Your task to perform on an android device: Add bose soundlink to the cart on amazon, then select checkout. Image 0: 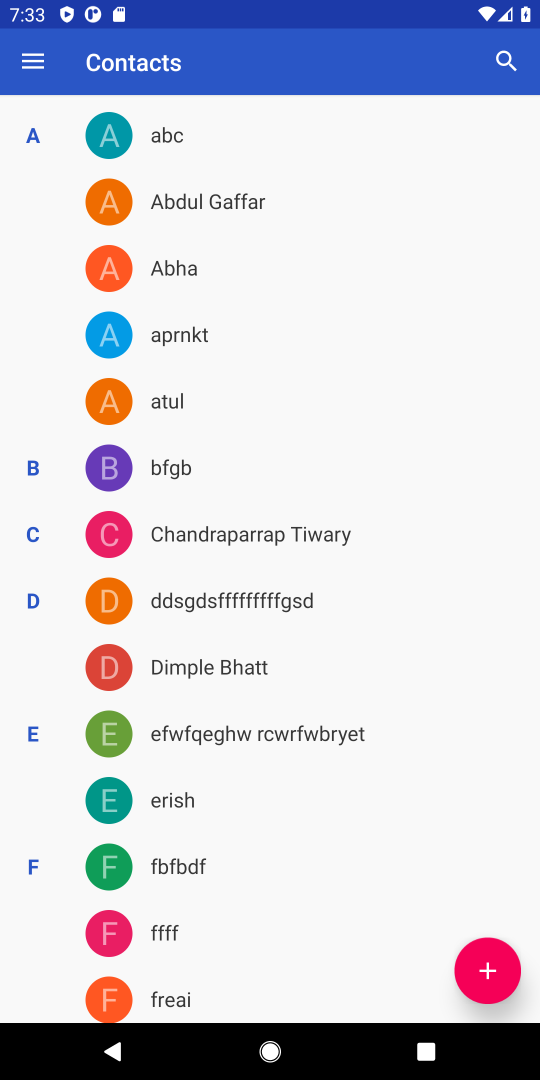
Step 0: press home button
Your task to perform on an android device: Add bose soundlink to the cart on amazon, then select checkout. Image 1: 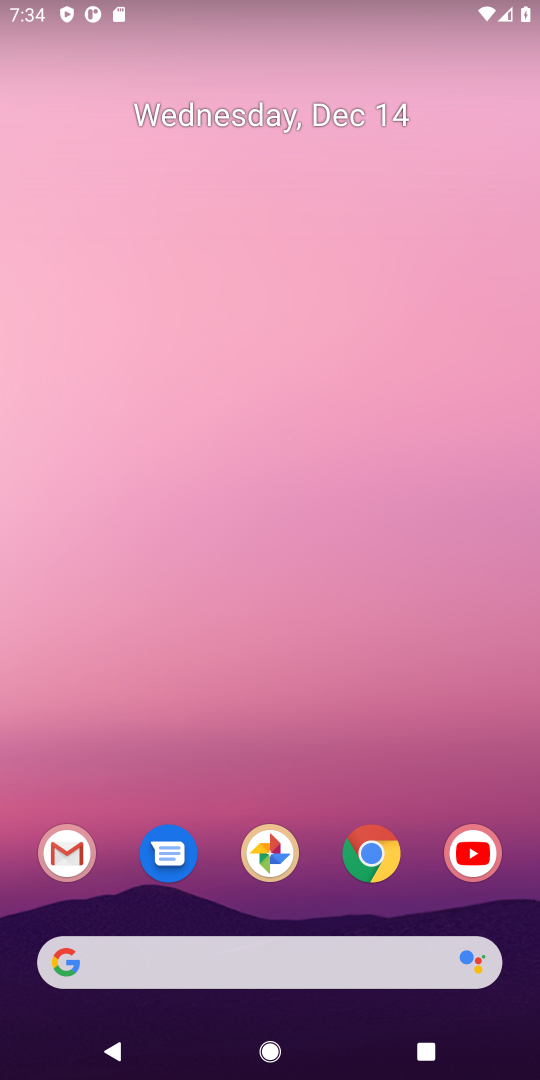
Step 1: click (374, 857)
Your task to perform on an android device: Add bose soundlink to the cart on amazon, then select checkout. Image 2: 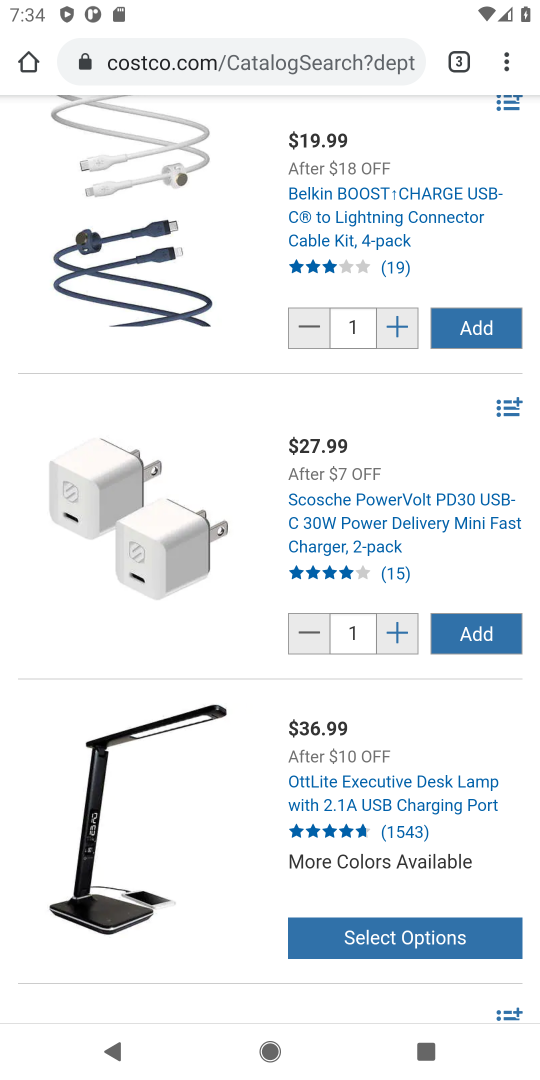
Step 2: click (453, 64)
Your task to perform on an android device: Add bose soundlink to the cart on amazon, then select checkout. Image 3: 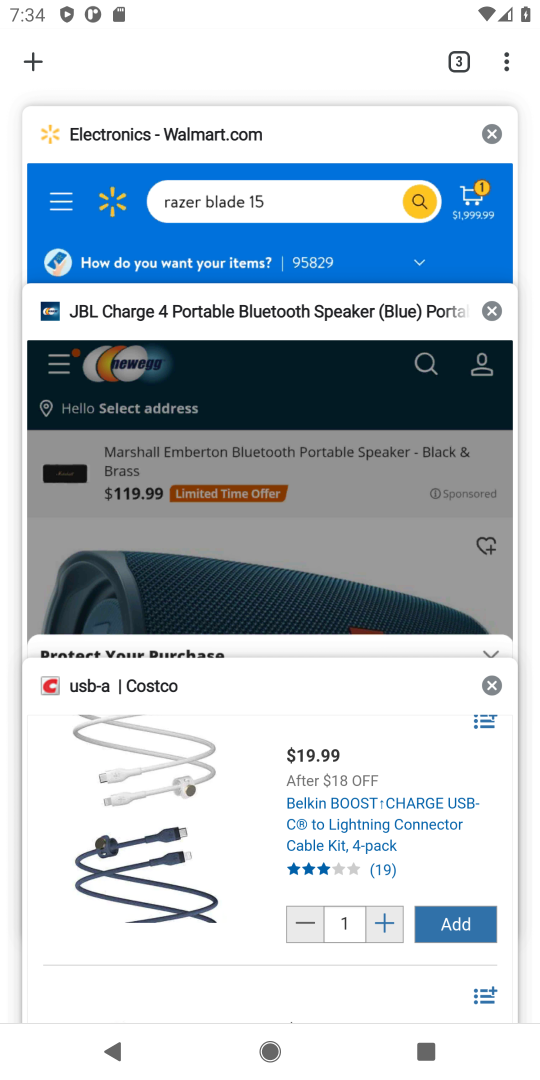
Step 3: click (40, 56)
Your task to perform on an android device: Add bose soundlink to the cart on amazon, then select checkout. Image 4: 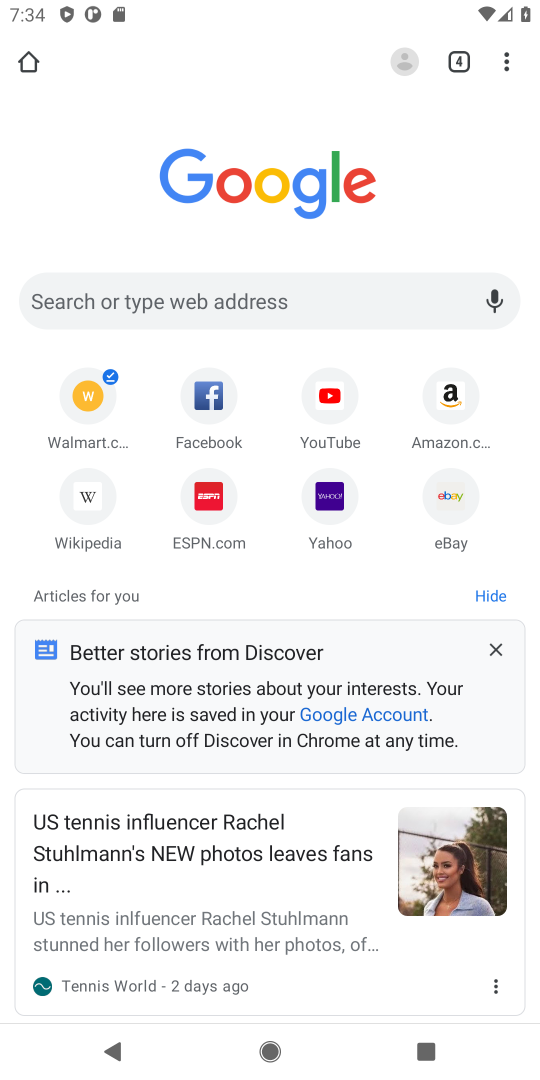
Step 4: click (249, 308)
Your task to perform on an android device: Add bose soundlink to the cart on amazon, then select checkout. Image 5: 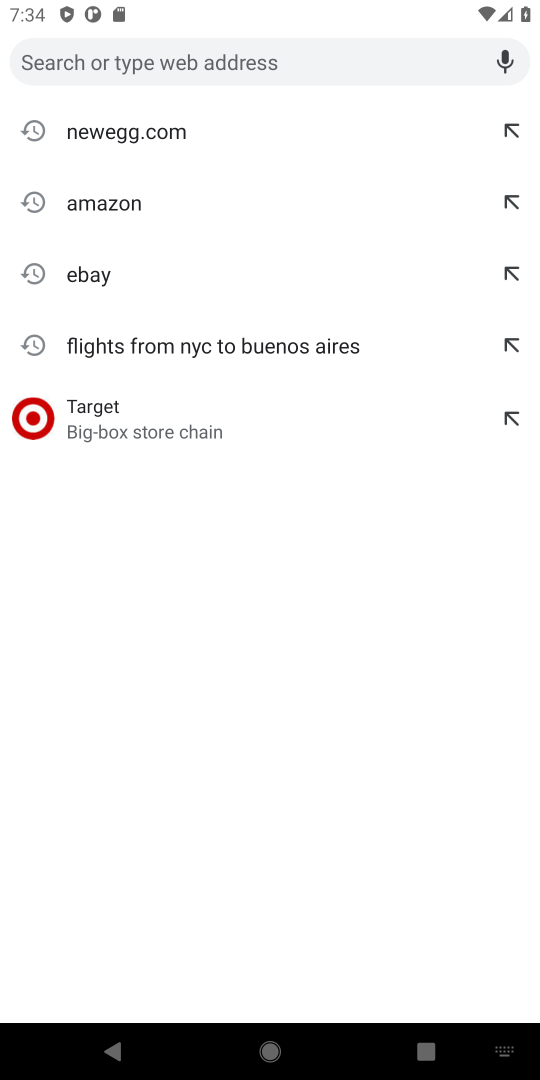
Step 5: click (122, 215)
Your task to perform on an android device: Add bose soundlink to the cart on amazon, then select checkout. Image 6: 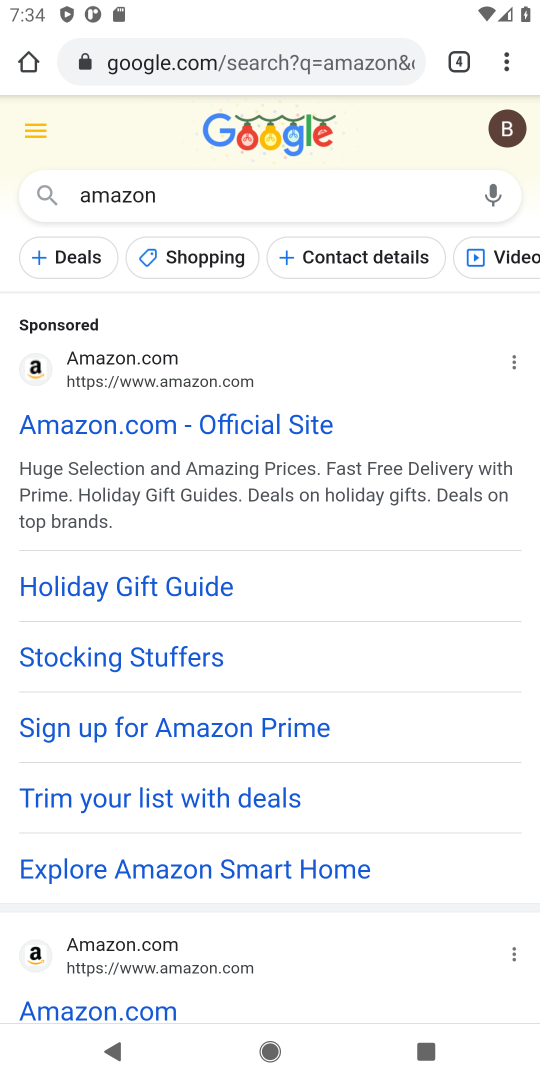
Step 6: click (191, 420)
Your task to perform on an android device: Add bose soundlink to the cart on amazon, then select checkout. Image 7: 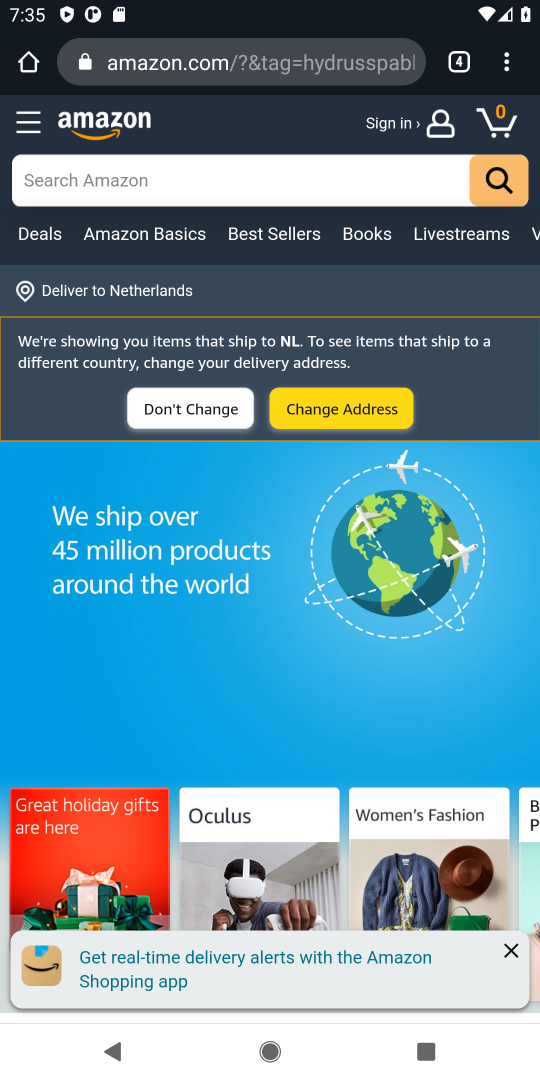
Step 7: click (111, 164)
Your task to perform on an android device: Add bose soundlink to the cart on amazon, then select checkout. Image 8: 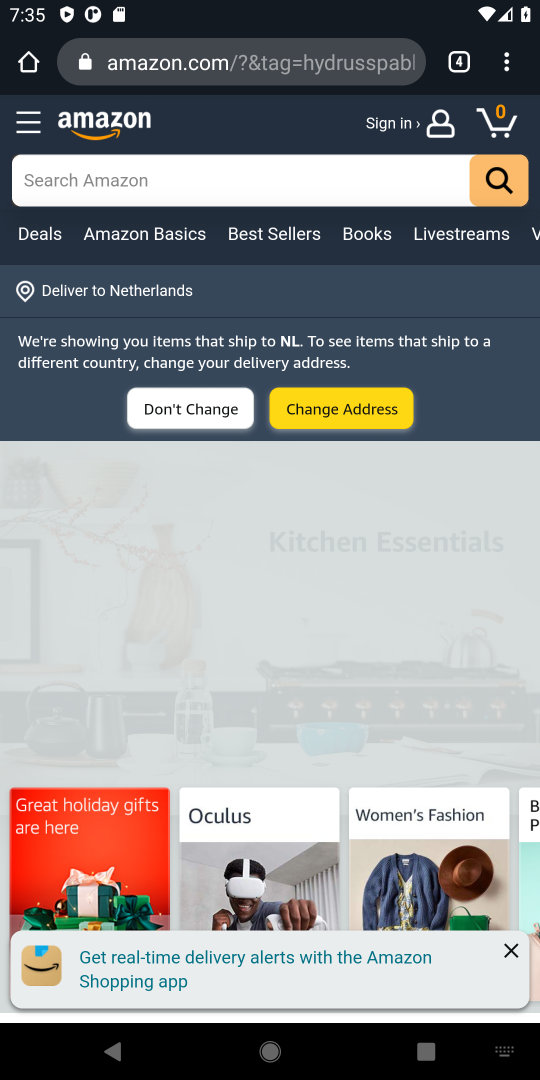
Step 8: type "bose soundlink"
Your task to perform on an android device: Add bose soundlink to the cart on amazon, then select checkout. Image 9: 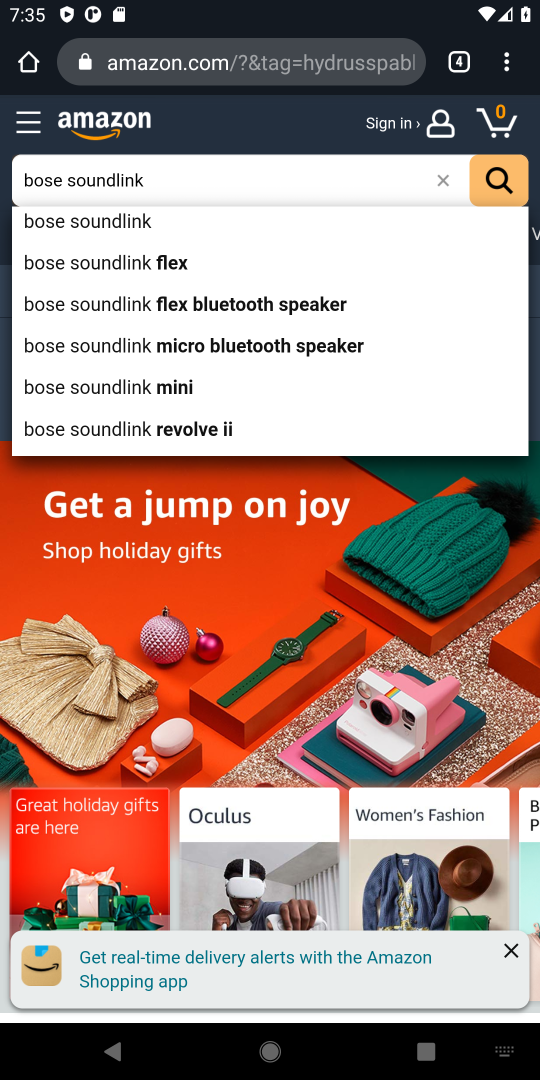
Step 9: click (94, 226)
Your task to perform on an android device: Add bose soundlink to the cart on amazon, then select checkout. Image 10: 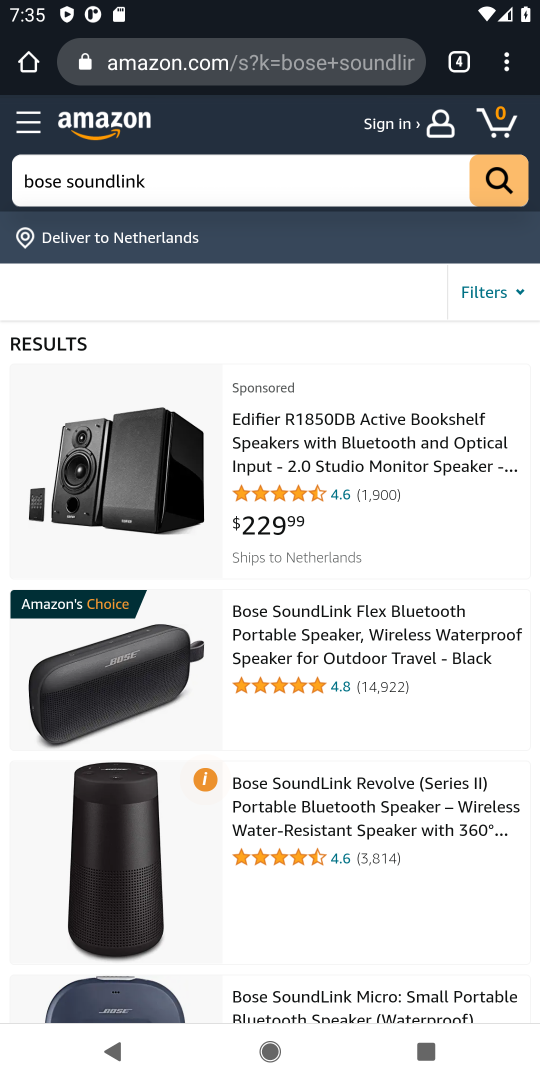
Step 10: click (325, 648)
Your task to perform on an android device: Add bose soundlink to the cart on amazon, then select checkout. Image 11: 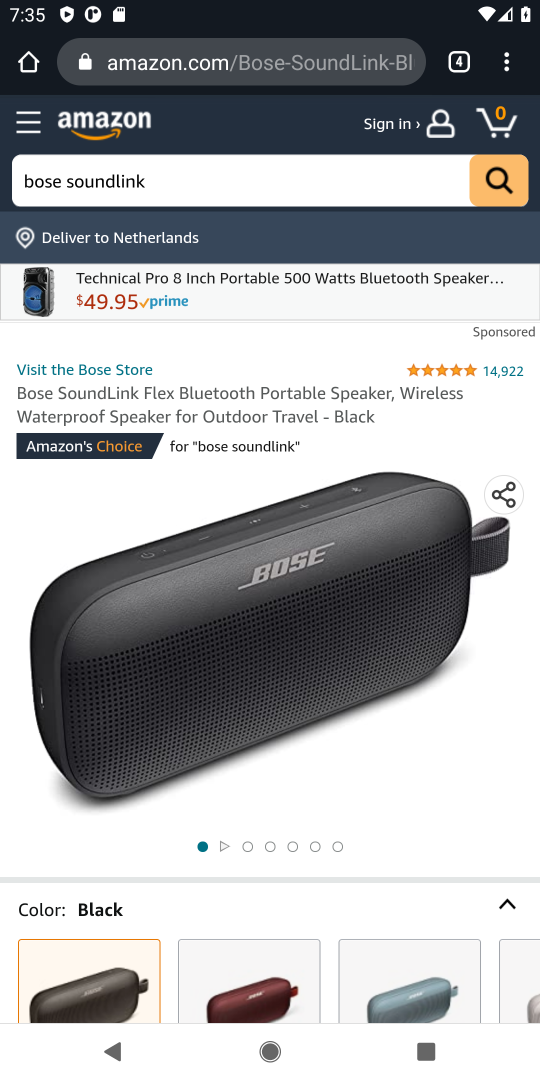
Step 11: drag from (277, 887) to (349, 216)
Your task to perform on an android device: Add bose soundlink to the cart on amazon, then select checkout. Image 12: 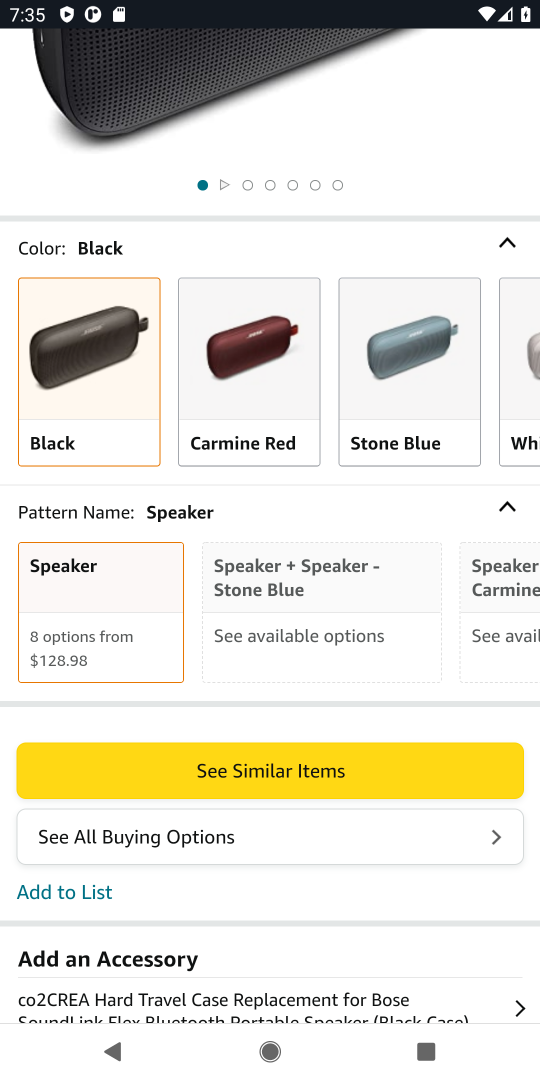
Step 12: click (293, 770)
Your task to perform on an android device: Add bose soundlink to the cart on amazon, then select checkout. Image 13: 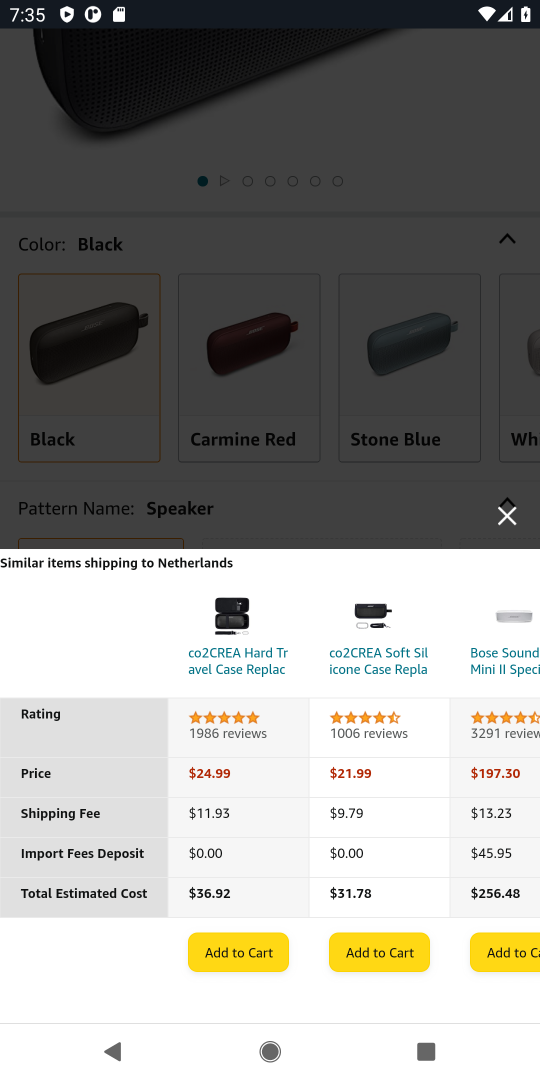
Step 13: click (501, 942)
Your task to perform on an android device: Add bose soundlink to the cart on amazon, then select checkout. Image 14: 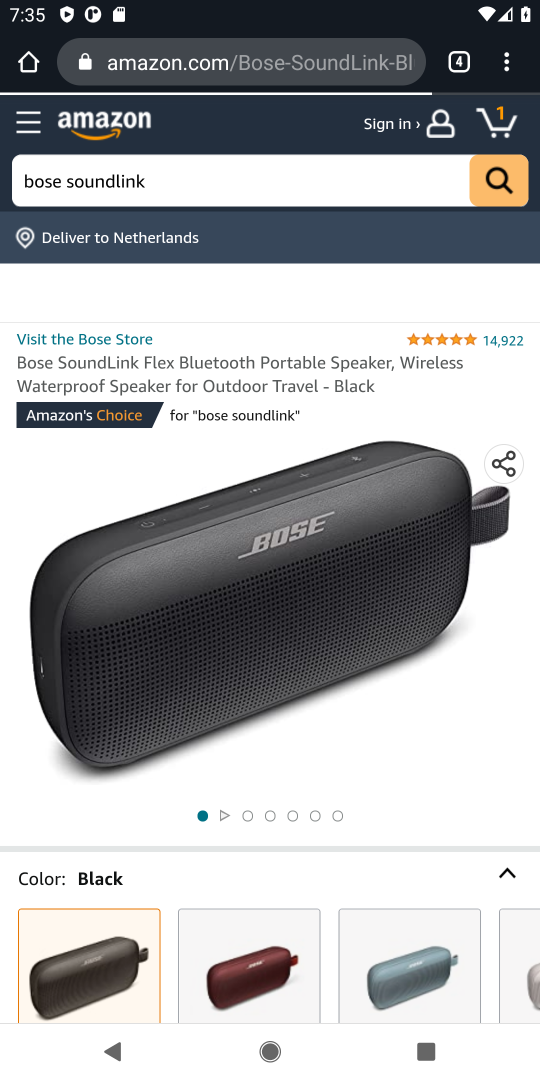
Step 14: task complete